Your task to perform on an android device: show emergency info Image 0: 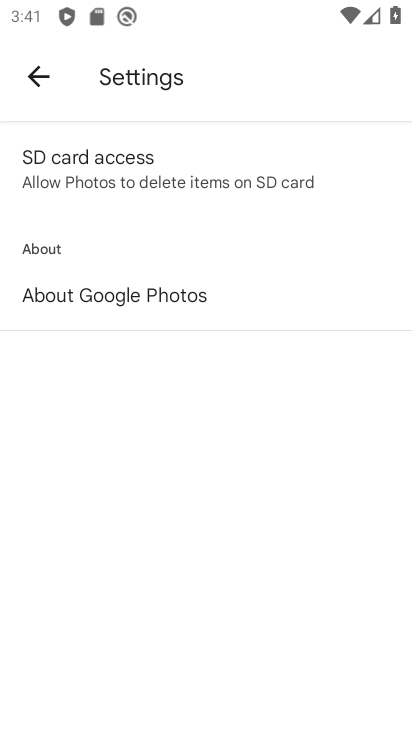
Step 0: press home button
Your task to perform on an android device: show emergency info Image 1: 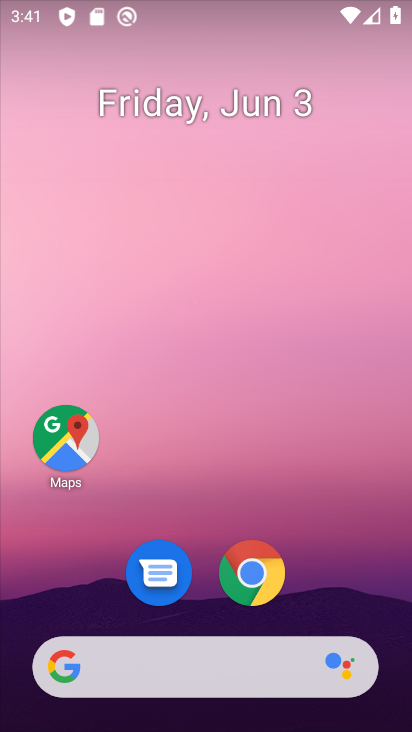
Step 1: drag from (411, 701) to (400, 291)
Your task to perform on an android device: show emergency info Image 2: 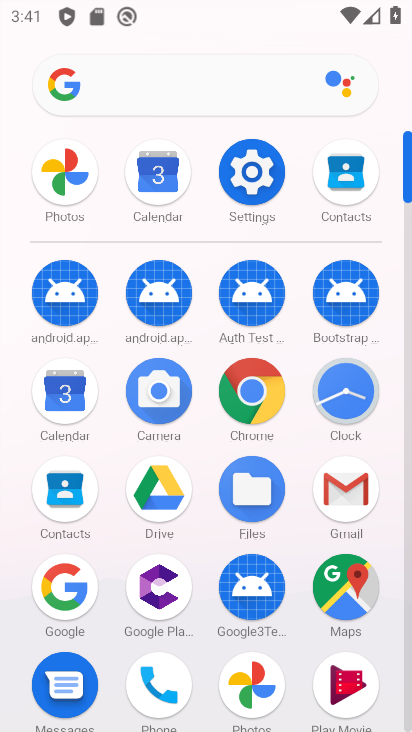
Step 2: click (254, 173)
Your task to perform on an android device: show emergency info Image 3: 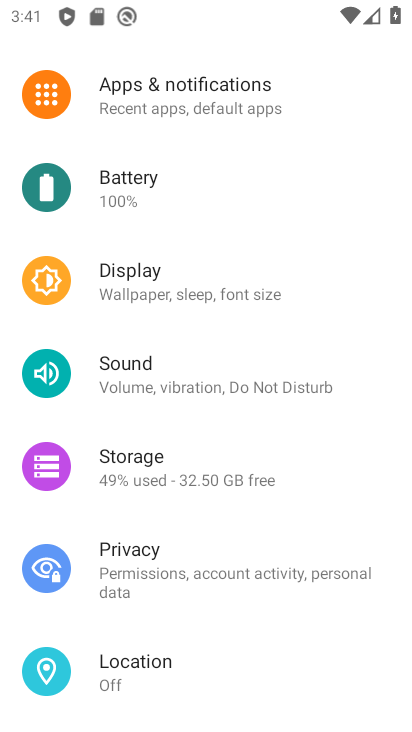
Step 3: drag from (277, 652) to (295, 328)
Your task to perform on an android device: show emergency info Image 4: 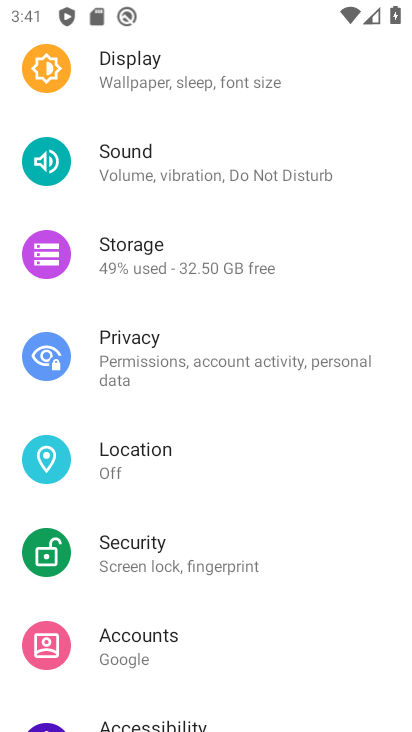
Step 4: drag from (292, 695) to (285, 441)
Your task to perform on an android device: show emergency info Image 5: 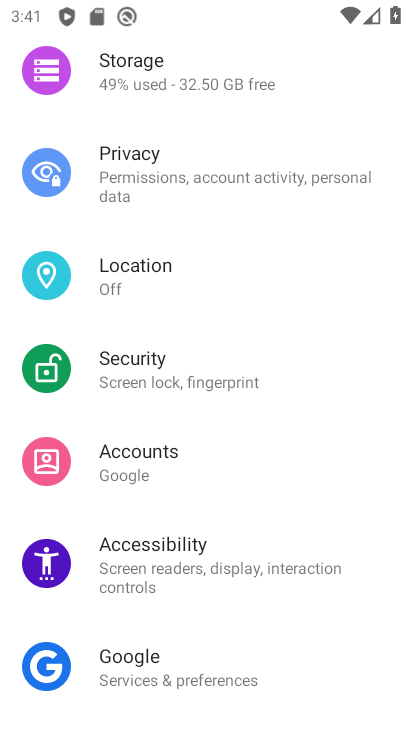
Step 5: drag from (327, 671) to (289, 269)
Your task to perform on an android device: show emergency info Image 6: 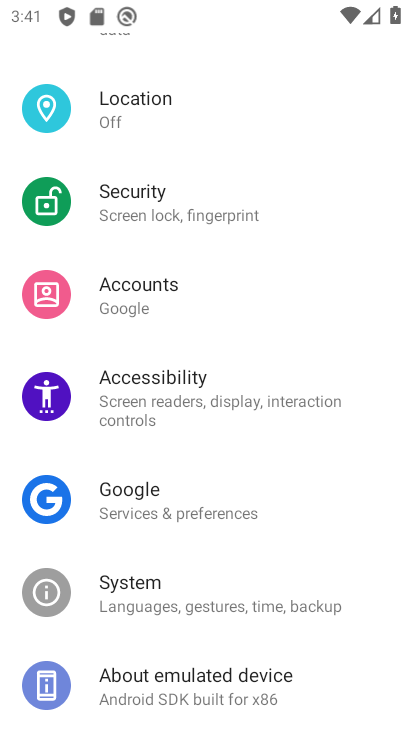
Step 6: click (170, 678)
Your task to perform on an android device: show emergency info Image 7: 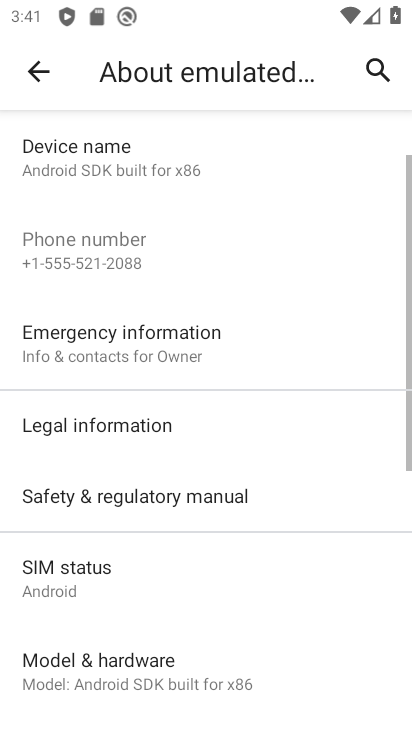
Step 7: click (121, 348)
Your task to perform on an android device: show emergency info Image 8: 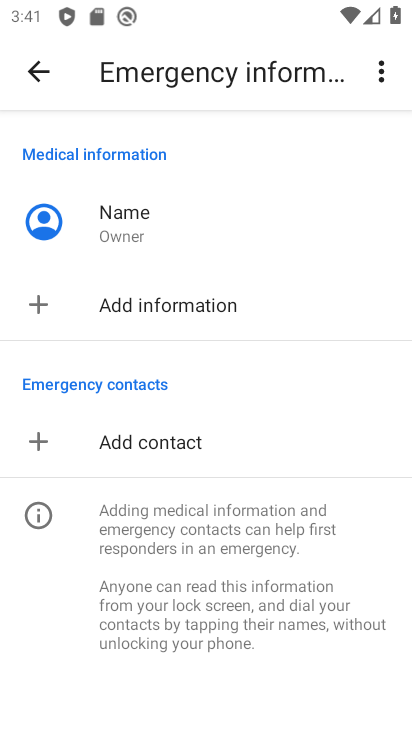
Step 8: task complete